Your task to perform on an android device: Open Youtube and go to "Your channel" Image 0: 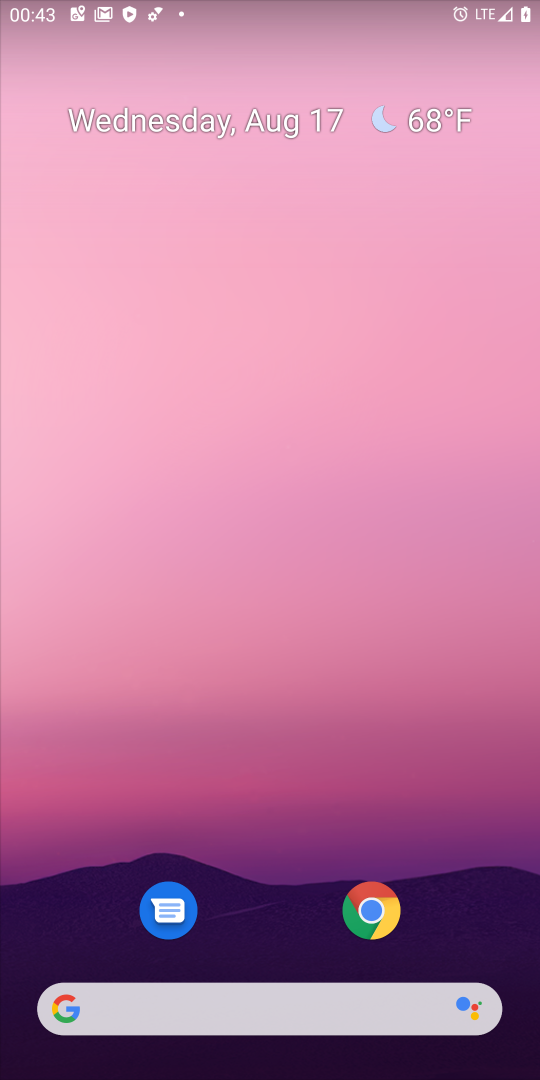
Step 0: drag from (276, 908) to (285, 0)
Your task to perform on an android device: Open Youtube and go to "Your channel" Image 1: 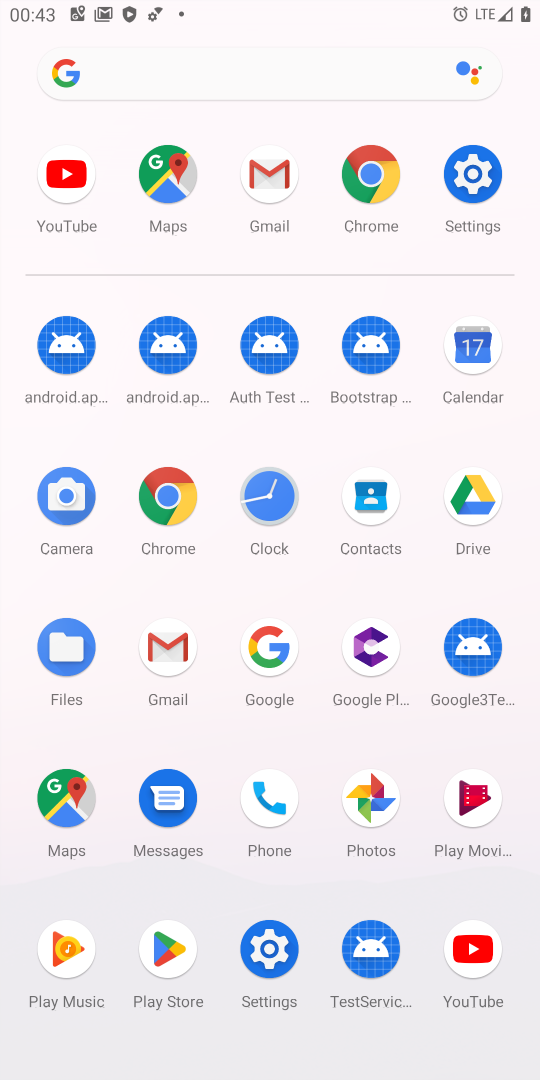
Step 1: click (483, 939)
Your task to perform on an android device: Open Youtube and go to "Your channel" Image 2: 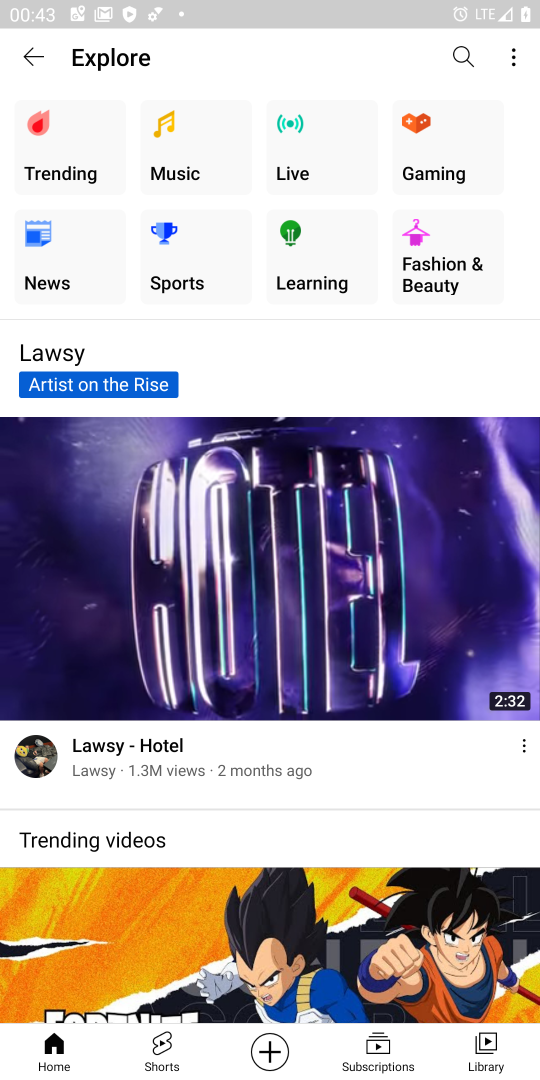
Step 2: press back button
Your task to perform on an android device: Open Youtube and go to "Your channel" Image 3: 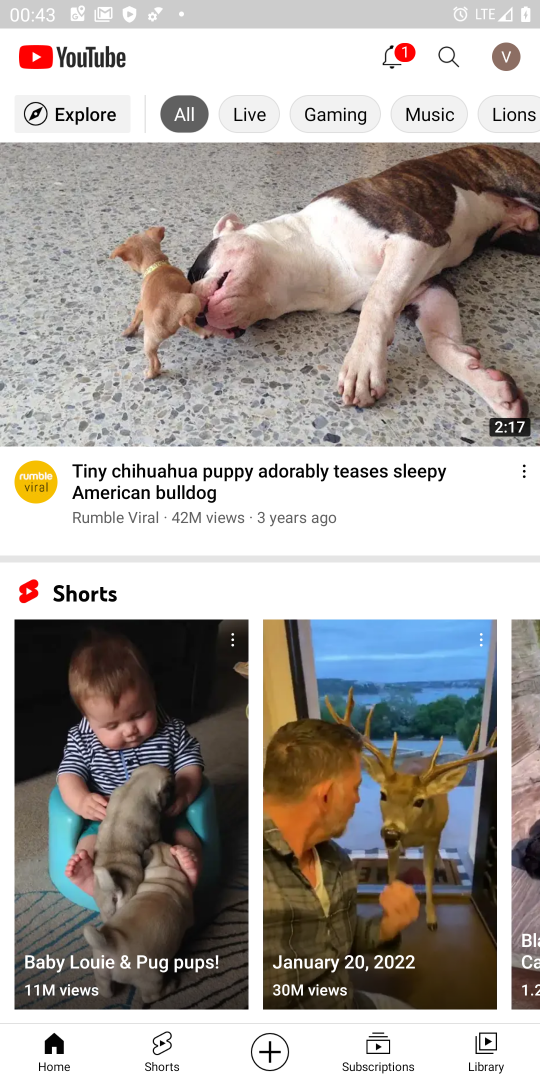
Step 3: click (503, 51)
Your task to perform on an android device: Open Youtube and go to "Your channel" Image 4: 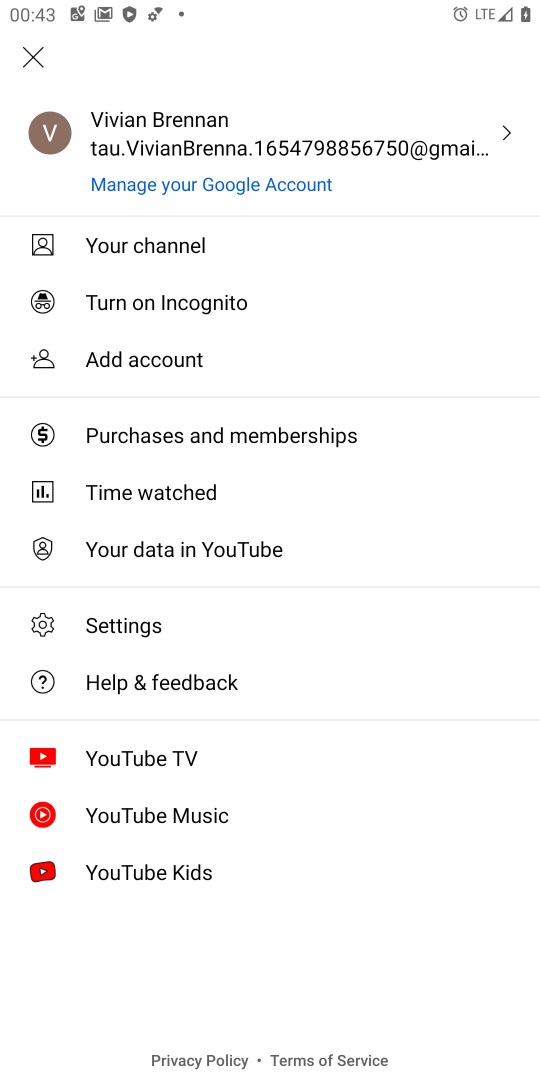
Step 4: click (215, 234)
Your task to perform on an android device: Open Youtube and go to "Your channel" Image 5: 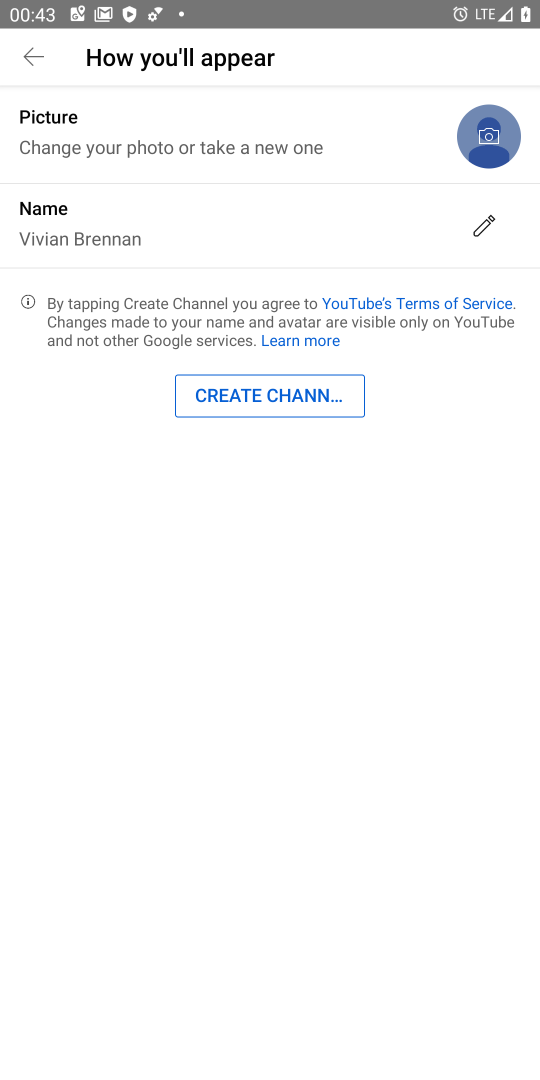
Step 5: task complete